Your task to perform on an android device: turn off improve location accuracy Image 0: 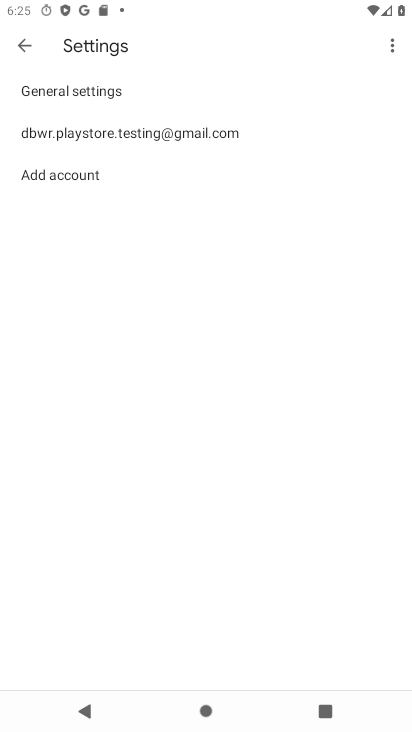
Step 0: press home button
Your task to perform on an android device: turn off improve location accuracy Image 1: 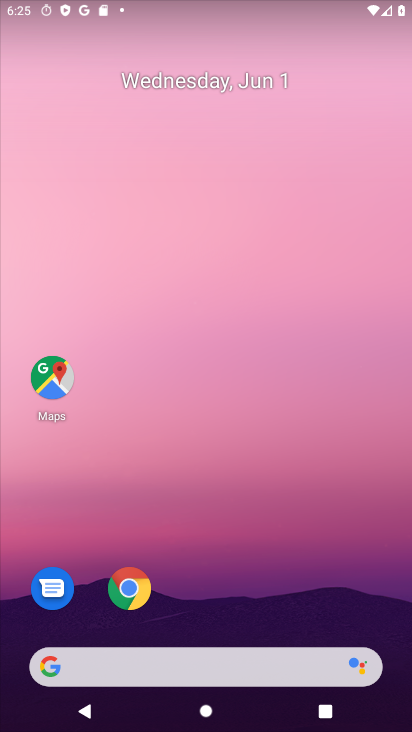
Step 1: drag from (212, 611) to (222, 148)
Your task to perform on an android device: turn off improve location accuracy Image 2: 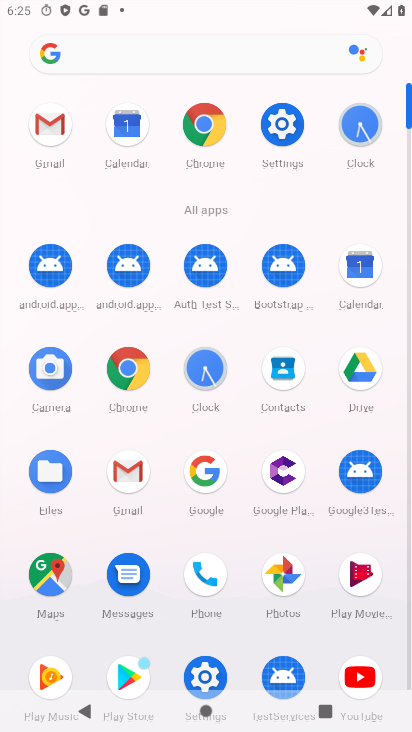
Step 2: click (280, 132)
Your task to perform on an android device: turn off improve location accuracy Image 3: 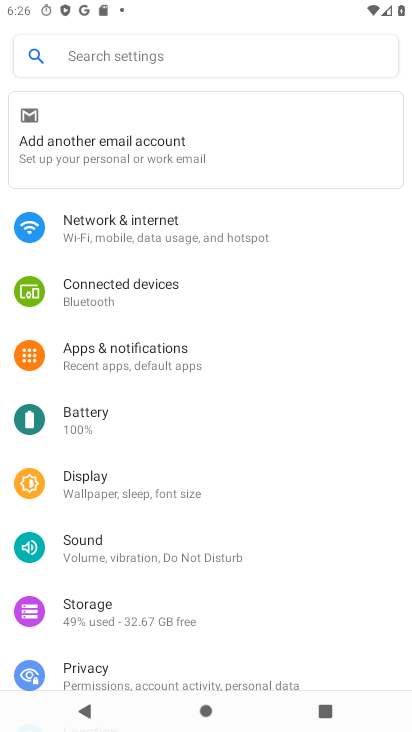
Step 3: drag from (97, 667) to (130, 367)
Your task to perform on an android device: turn off improve location accuracy Image 4: 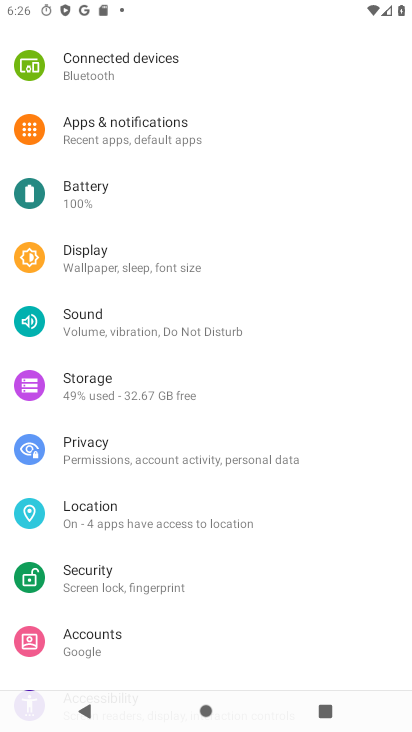
Step 4: click (98, 513)
Your task to perform on an android device: turn off improve location accuracy Image 5: 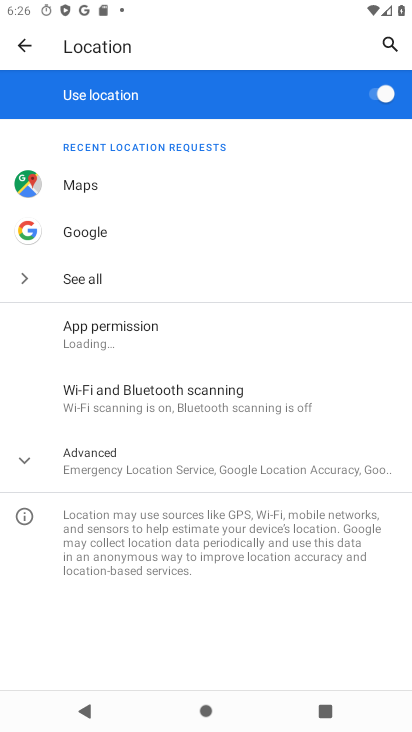
Step 5: click (100, 463)
Your task to perform on an android device: turn off improve location accuracy Image 6: 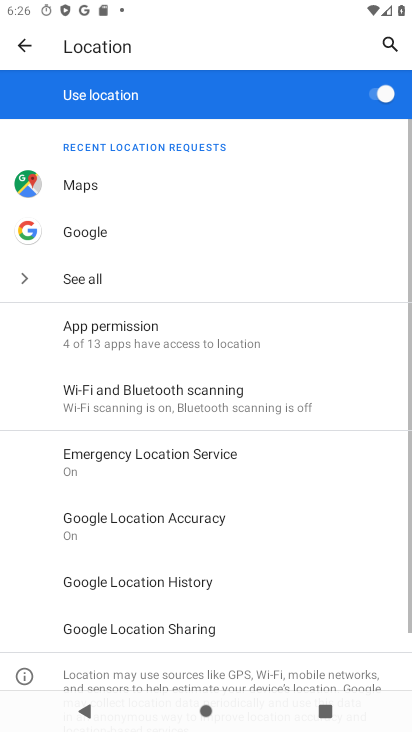
Step 6: click (143, 515)
Your task to perform on an android device: turn off improve location accuracy Image 7: 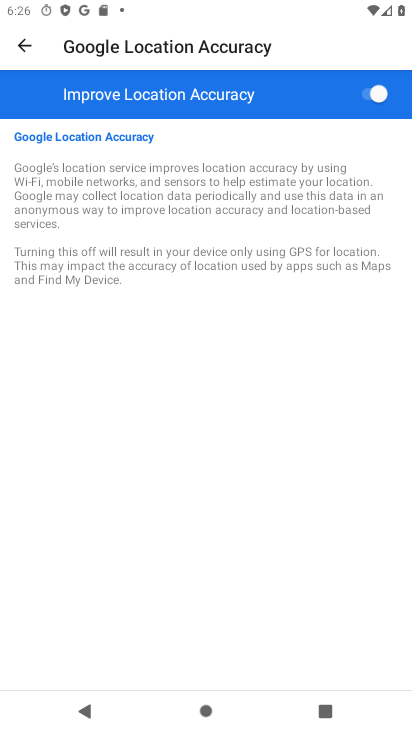
Step 7: click (369, 93)
Your task to perform on an android device: turn off improve location accuracy Image 8: 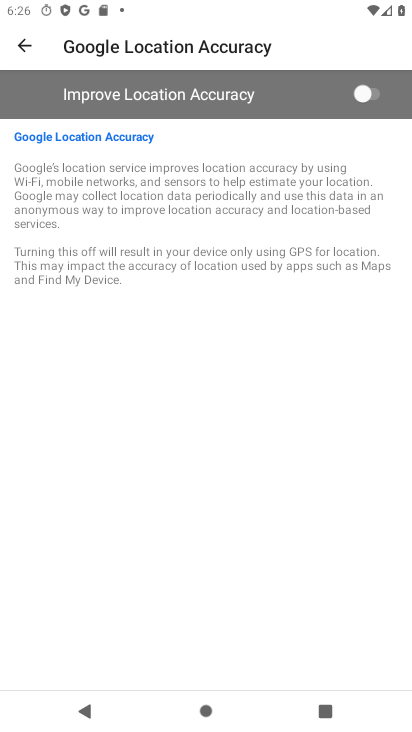
Step 8: task complete